Your task to perform on an android device: Open Google Chrome and click the shortcut for Amazon.com Image 0: 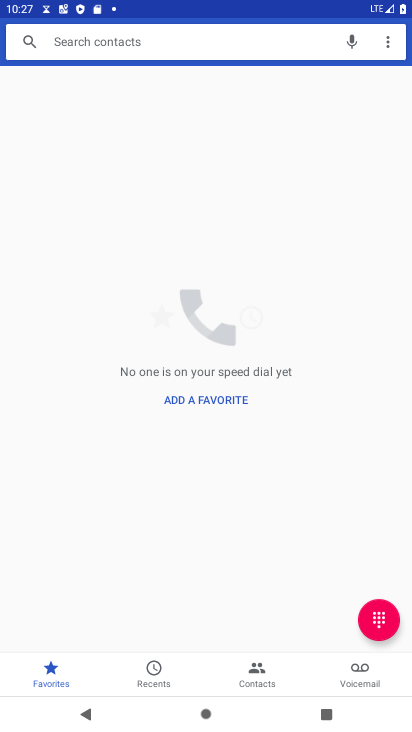
Step 0: press home button
Your task to perform on an android device: Open Google Chrome and click the shortcut for Amazon.com Image 1: 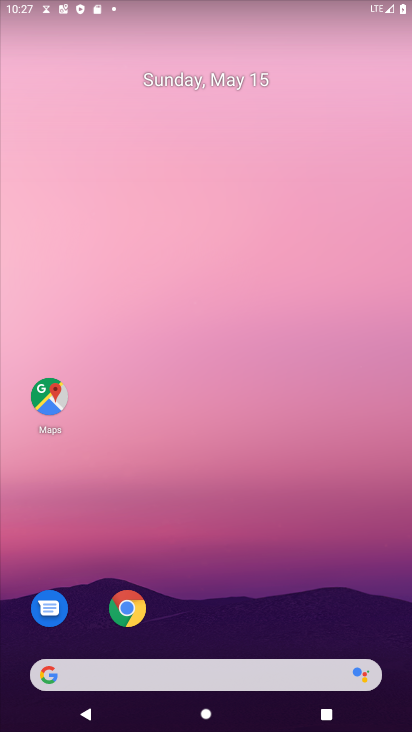
Step 1: drag from (274, 561) to (266, 121)
Your task to perform on an android device: Open Google Chrome and click the shortcut for Amazon.com Image 2: 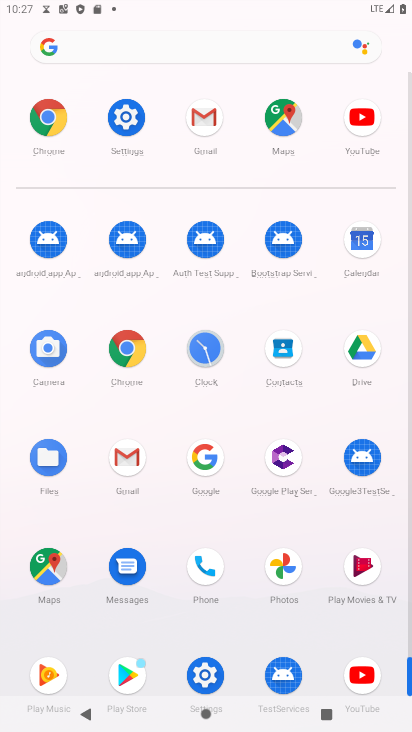
Step 2: click (45, 134)
Your task to perform on an android device: Open Google Chrome and click the shortcut for Amazon.com Image 3: 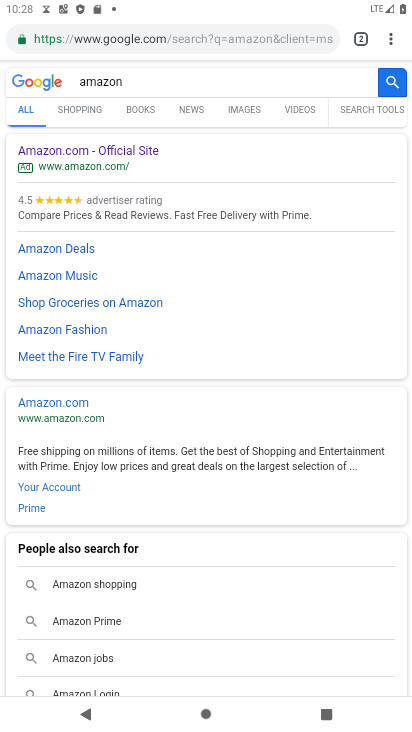
Step 3: click (85, 169)
Your task to perform on an android device: Open Google Chrome and click the shortcut for Amazon.com Image 4: 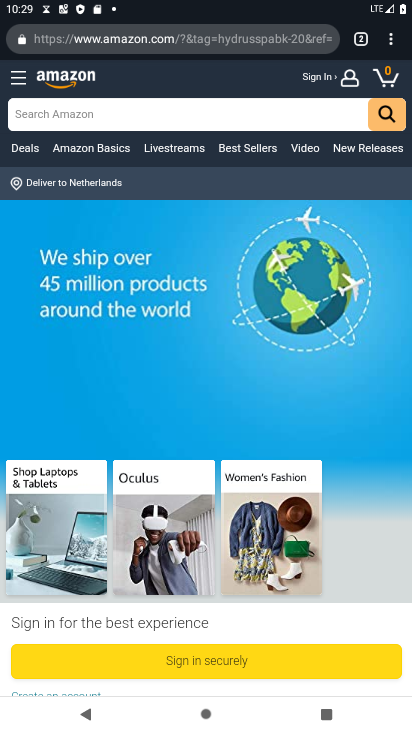
Step 4: drag from (389, 54) to (303, 406)
Your task to perform on an android device: Open Google Chrome and click the shortcut for Amazon.com Image 5: 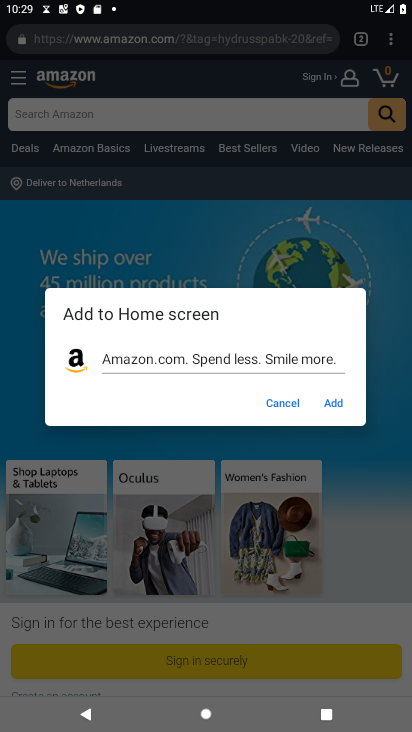
Step 5: click (328, 405)
Your task to perform on an android device: Open Google Chrome and click the shortcut for Amazon.com Image 6: 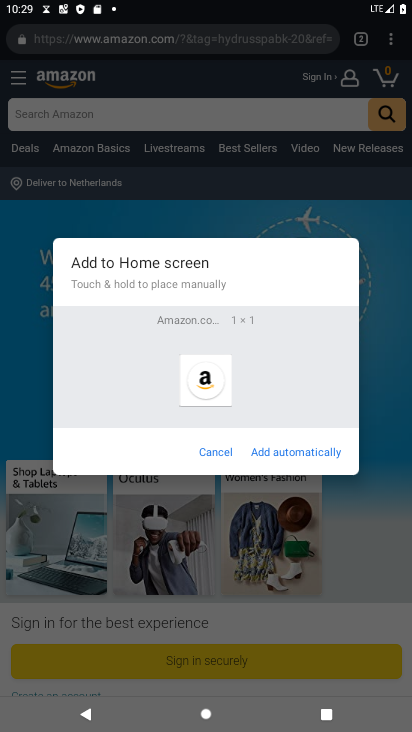
Step 6: click (296, 448)
Your task to perform on an android device: Open Google Chrome and click the shortcut for Amazon.com Image 7: 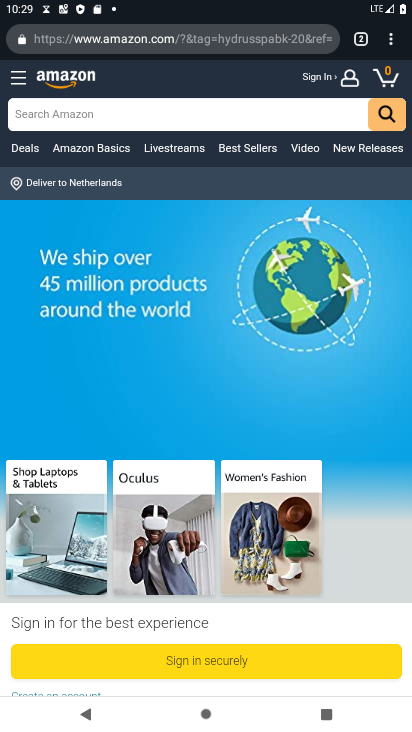
Step 7: task complete